Your task to perform on an android device: change alarm snooze length Image 0: 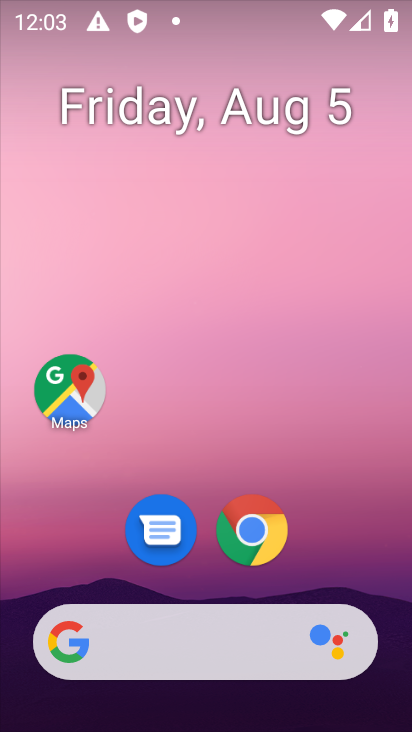
Step 0: drag from (46, 516) to (243, 156)
Your task to perform on an android device: change alarm snooze length Image 1: 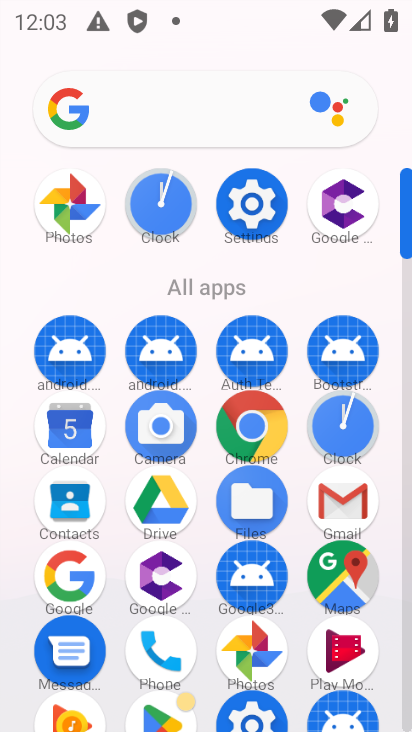
Step 1: click (142, 213)
Your task to perform on an android device: change alarm snooze length Image 2: 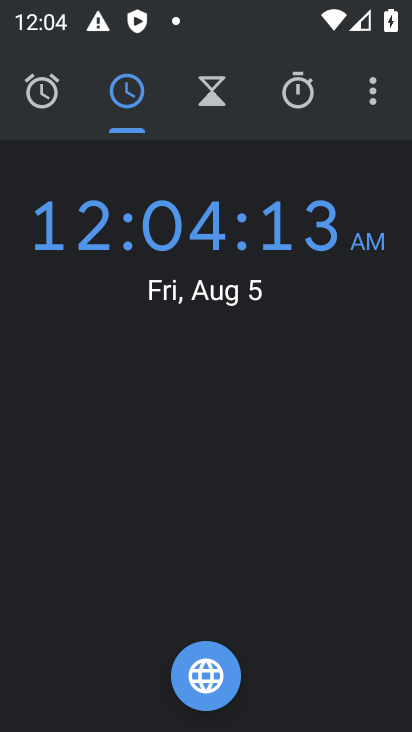
Step 2: click (376, 87)
Your task to perform on an android device: change alarm snooze length Image 3: 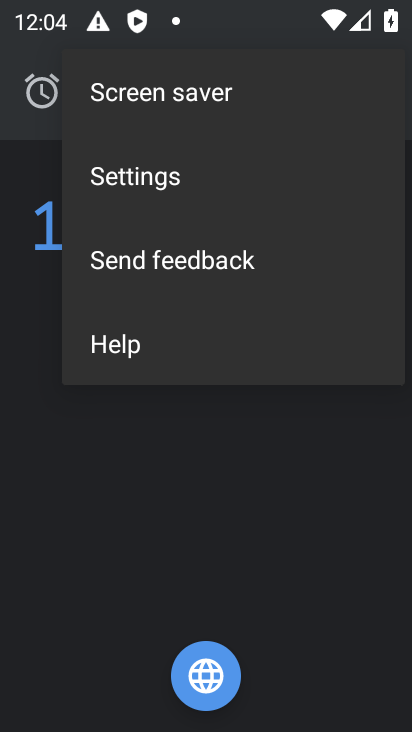
Step 3: click (146, 174)
Your task to perform on an android device: change alarm snooze length Image 4: 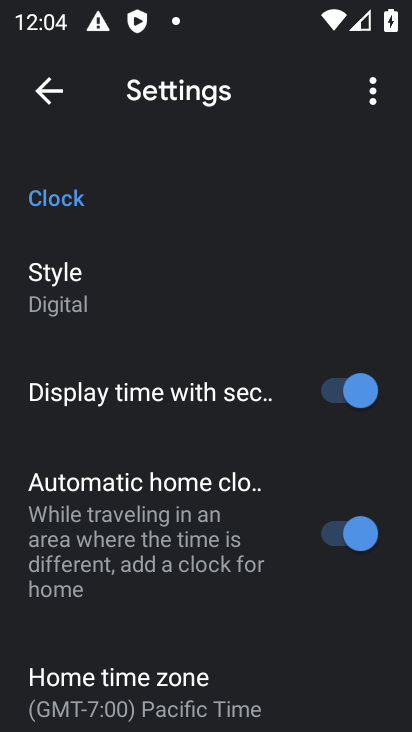
Step 4: drag from (42, 505) to (186, 132)
Your task to perform on an android device: change alarm snooze length Image 5: 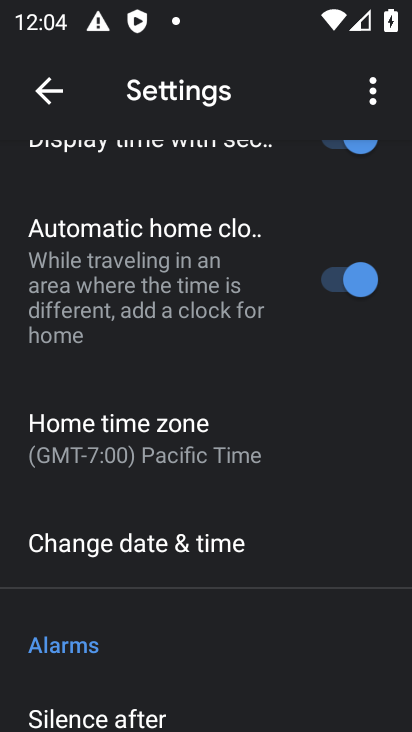
Step 5: drag from (51, 523) to (250, 184)
Your task to perform on an android device: change alarm snooze length Image 6: 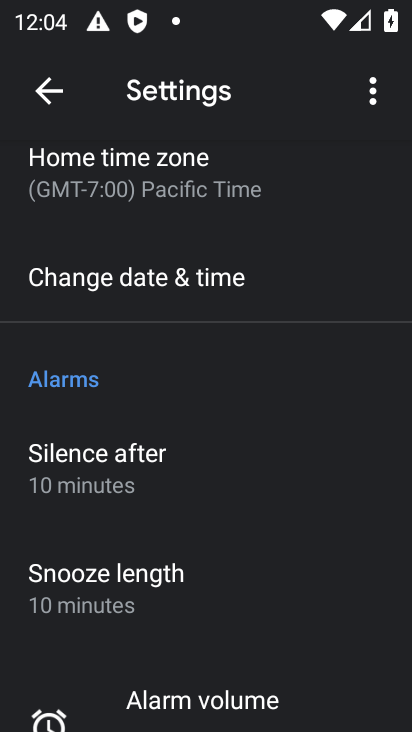
Step 6: click (88, 590)
Your task to perform on an android device: change alarm snooze length Image 7: 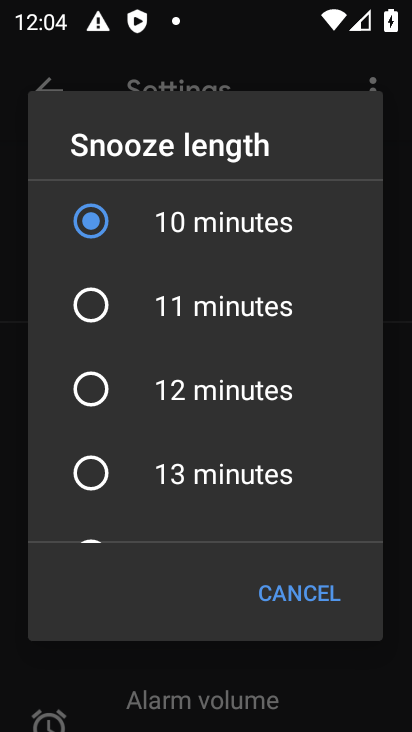
Step 7: click (92, 306)
Your task to perform on an android device: change alarm snooze length Image 8: 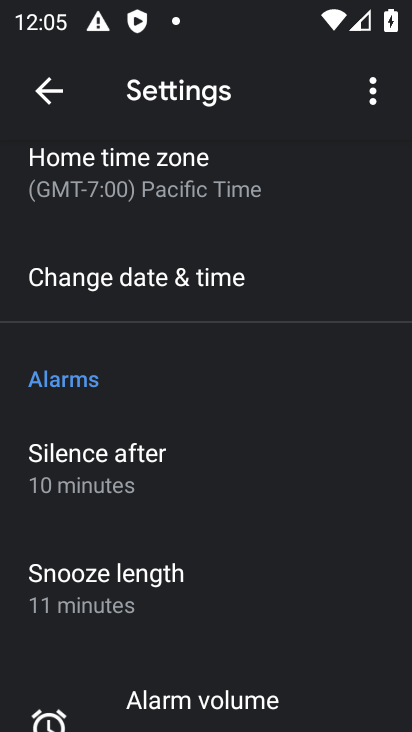
Step 8: task complete